Your task to perform on an android device: Empty the shopping cart on bestbuy.com. Add "razer deathadder" to the cart on bestbuy.com, then select checkout. Image 0: 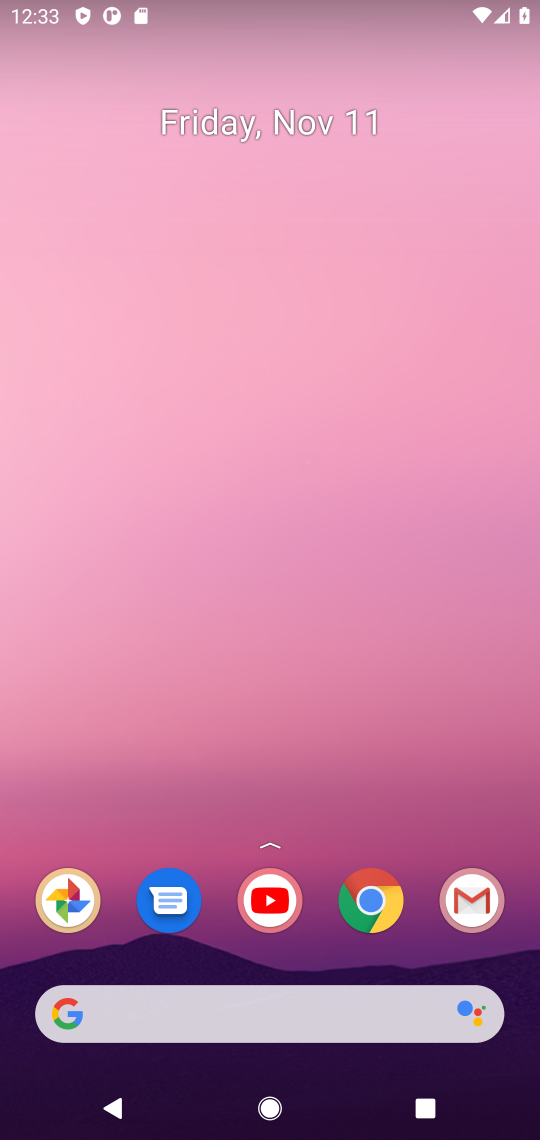
Step 0: click (366, 907)
Your task to perform on an android device: Empty the shopping cart on bestbuy.com. Add "razer deathadder" to the cart on bestbuy.com, then select checkout. Image 1: 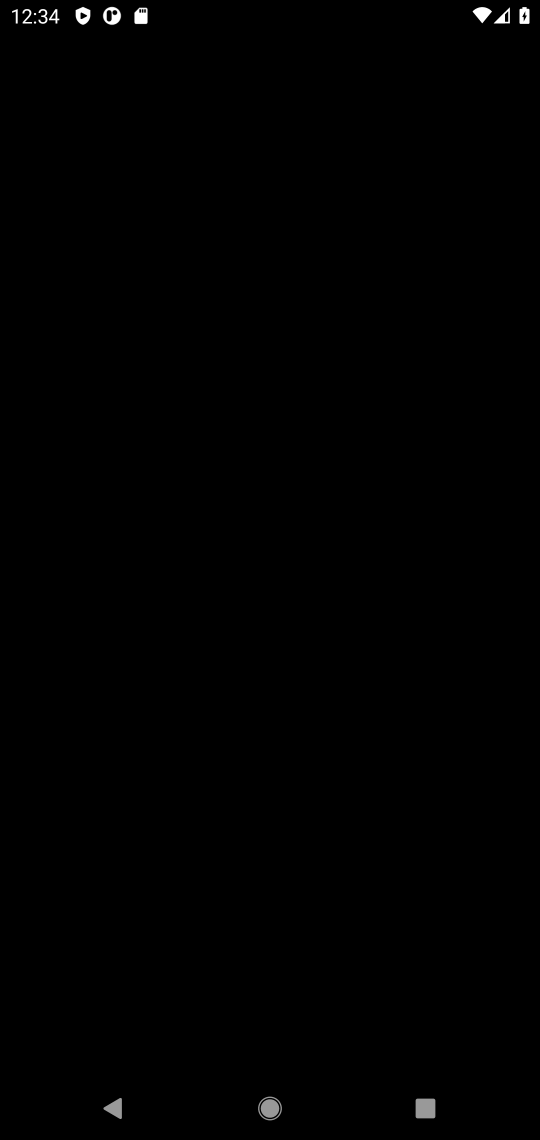
Step 1: press back button
Your task to perform on an android device: Empty the shopping cart on bestbuy.com. Add "razer deathadder" to the cart on bestbuy.com, then select checkout. Image 2: 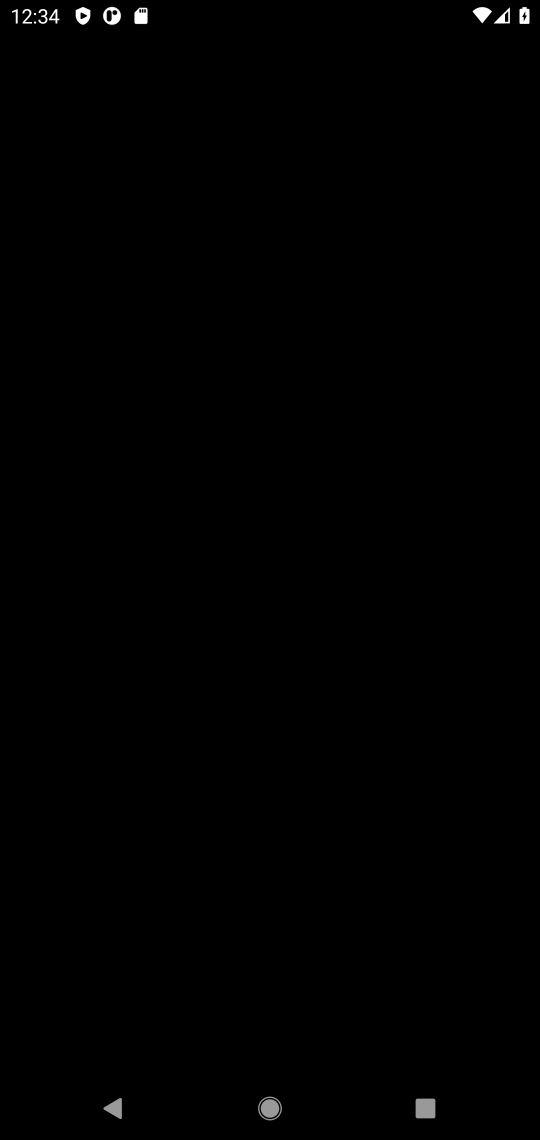
Step 2: press home button
Your task to perform on an android device: Empty the shopping cart on bestbuy.com. Add "razer deathadder" to the cart on bestbuy.com, then select checkout. Image 3: 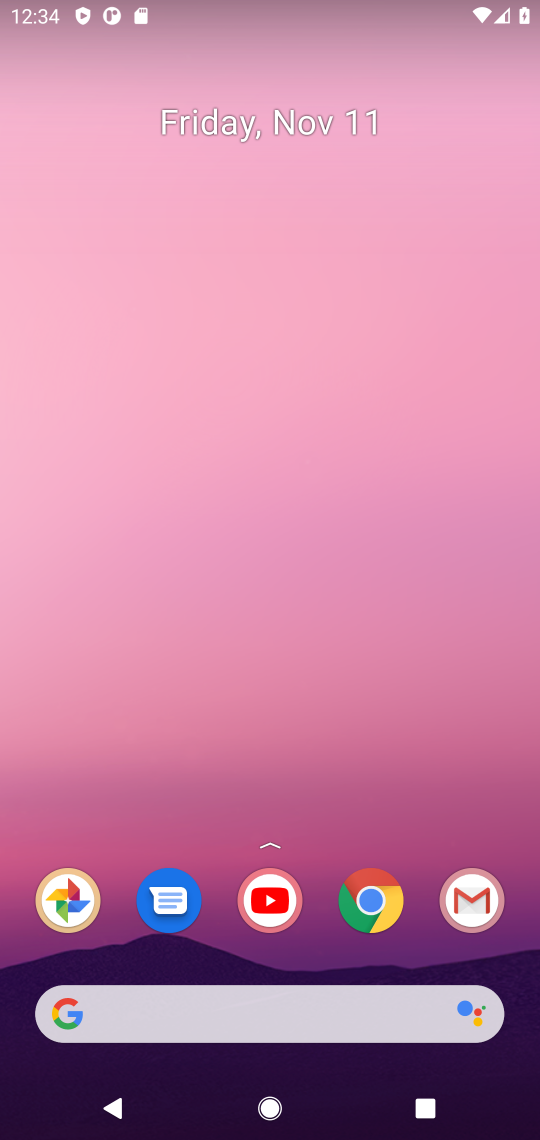
Step 3: click (369, 901)
Your task to perform on an android device: Empty the shopping cart on bestbuy.com. Add "razer deathadder" to the cart on bestbuy.com, then select checkout. Image 4: 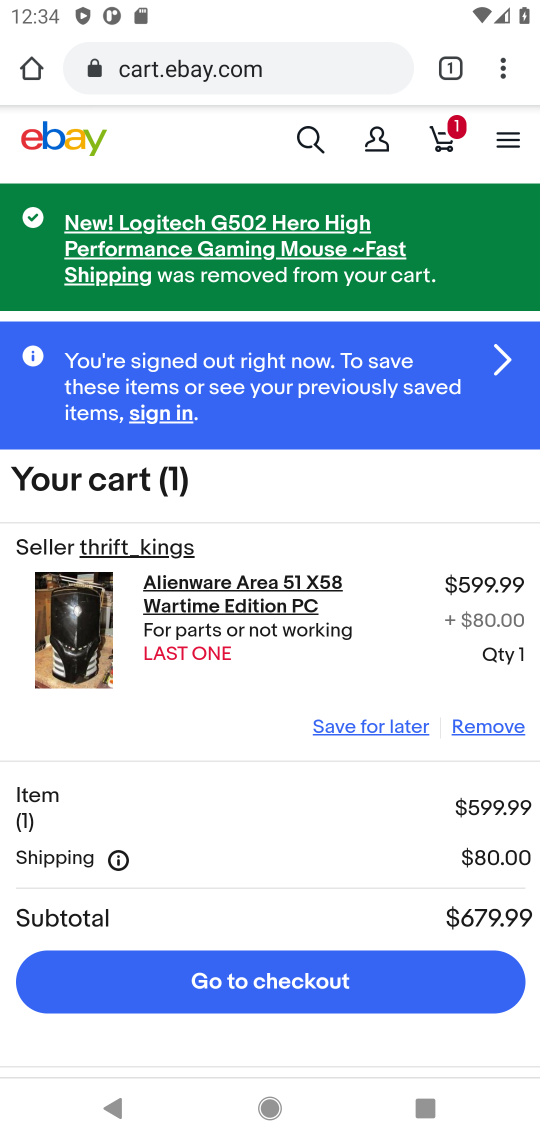
Step 4: click (288, 66)
Your task to perform on an android device: Empty the shopping cart on bestbuy.com. Add "razer deathadder" to the cart on bestbuy.com, then select checkout. Image 5: 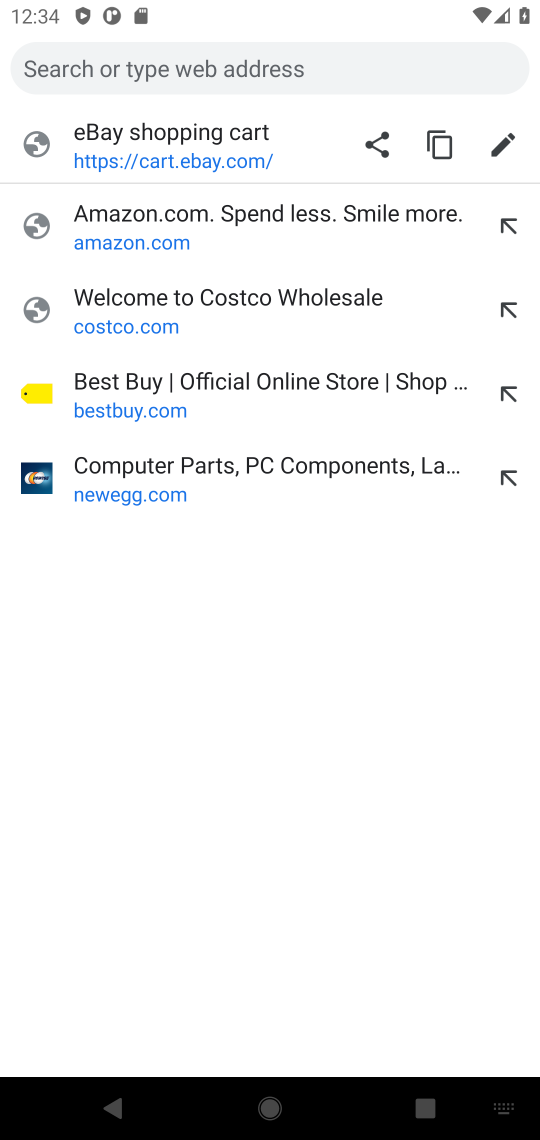
Step 5: click (136, 400)
Your task to perform on an android device: Empty the shopping cart on bestbuy.com. Add "razer deathadder" to the cart on bestbuy.com, then select checkout. Image 6: 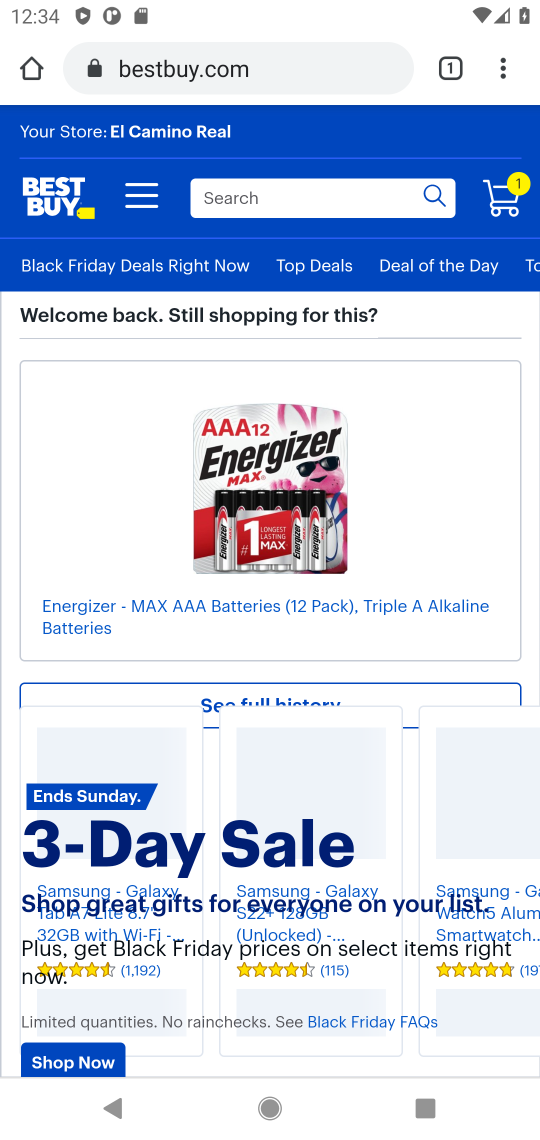
Step 6: click (298, 197)
Your task to perform on an android device: Empty the shopping cart on bestbuy.com. Add "razer deathadder" to the cart on bestbuy.com, then select checkout. Image 7: 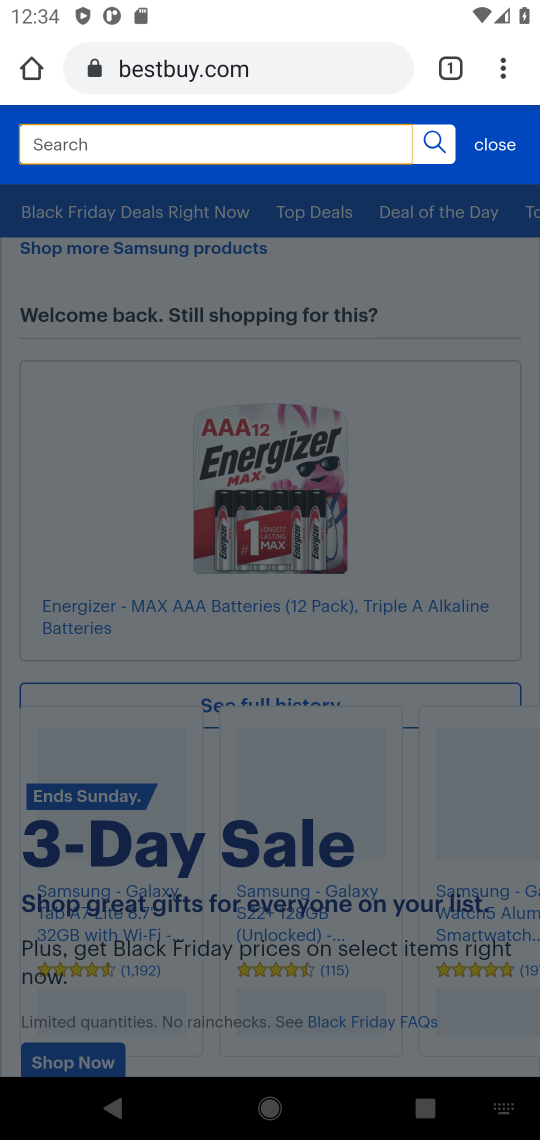
Step 7: type "razer deathadder"
Your task to perform on an android device: Empty the shopping cart on bestbuy.com. Add "razer deathadder" to the cart on bestbuy.com, then select checkout. Image 8: 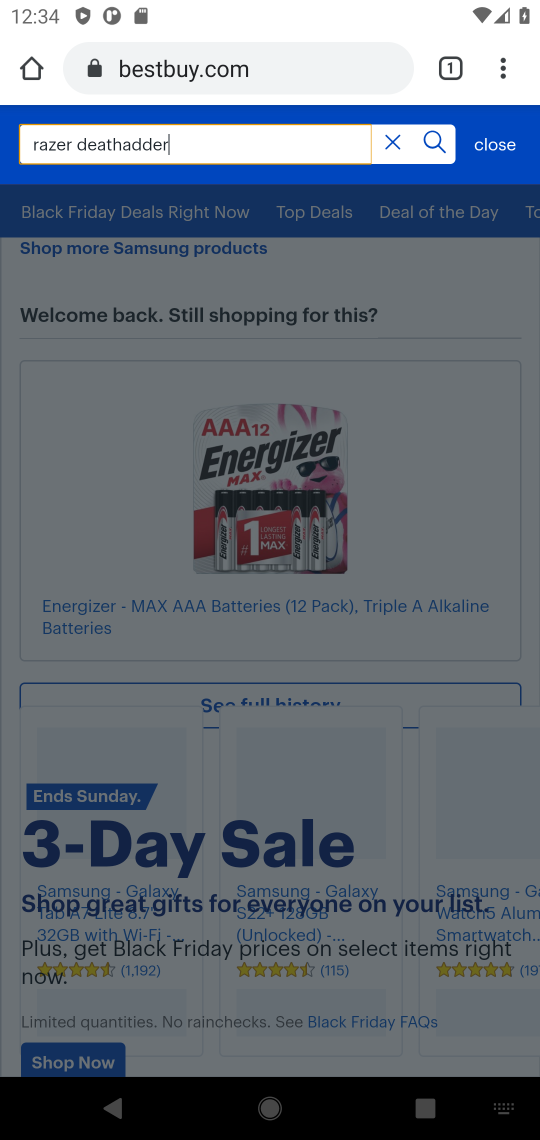
Step 8: press enter
Your task to perform on an android device: Empty the shopping cart on bestbuy.com. Add "razer deathadder" to the cart on bestbuy.com, then select checkout. Image 9: 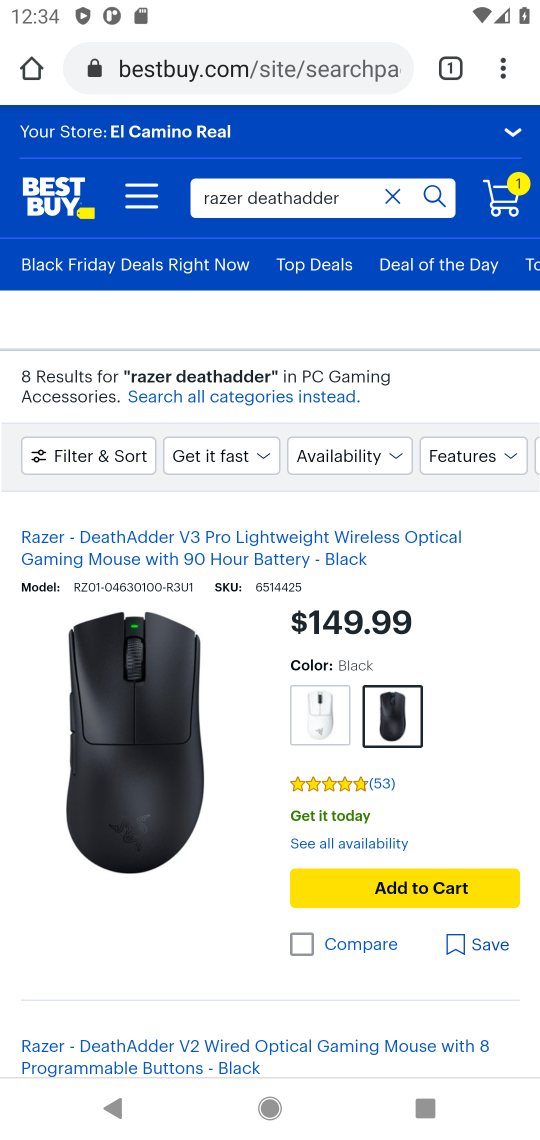
Step 9: drag from (226, 917) to (377, 602)
Your task to perform on an android device: Empty the shopping cart on bestbuy.com. Add "razer deathadder" to the cart on bestbuy.com, then select checkout. Image 10: 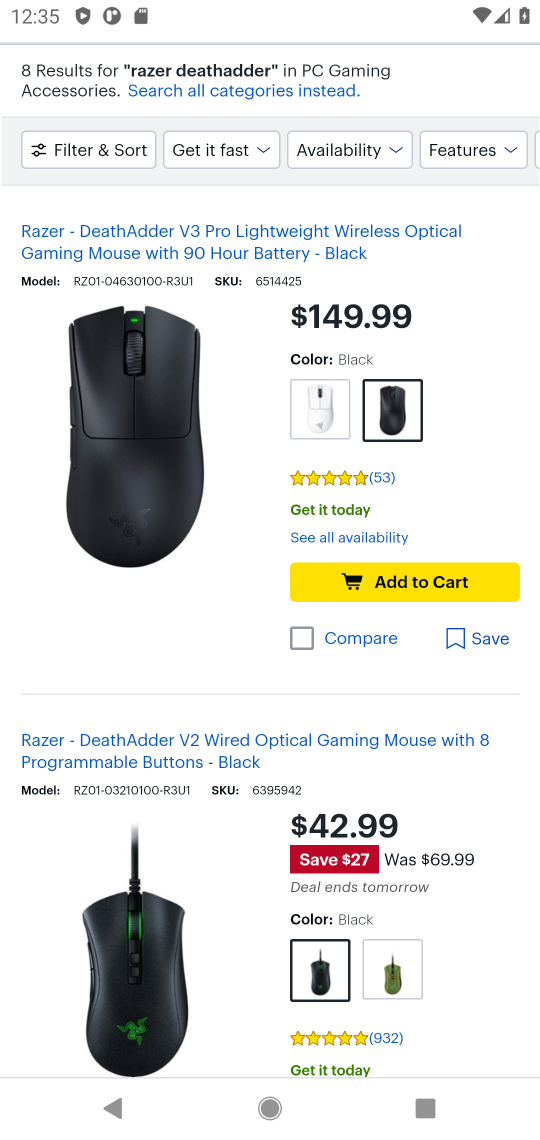
Step 10: click (434, 571)
Your task to perform on an android device: Empty the shopping cart on bestbuy.com. Add "razer deathadder" to the cart on bestbuy.com, then select checkout. Image 11: 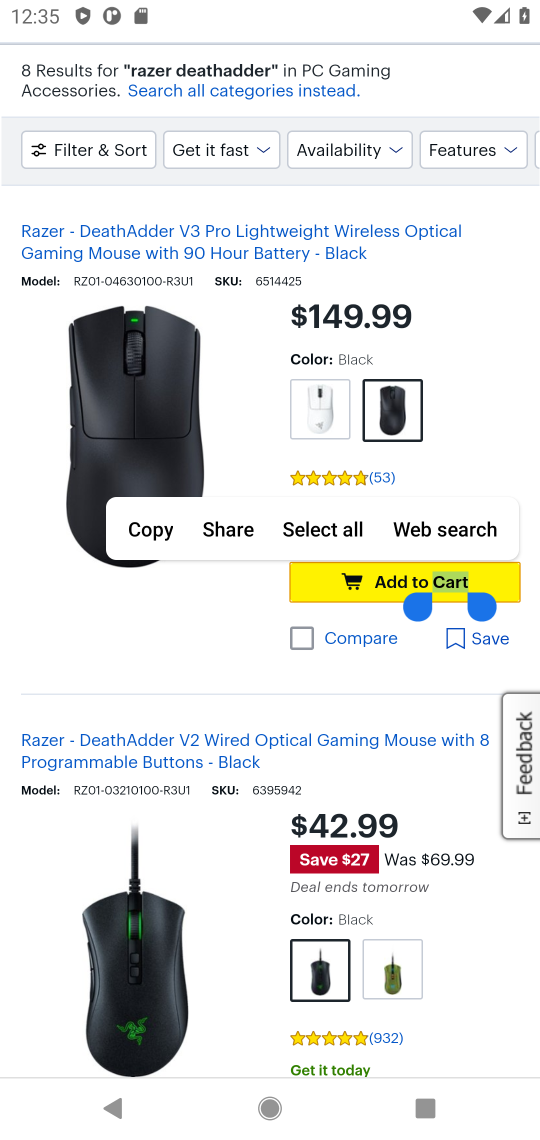
Step 11: click (399, 572)
Your task to perform on an android device: Empty the shopping cart on bestbuy.com. Add "razer deathadder" to the cart on bestbuy.com, then select checkout. Image 12: 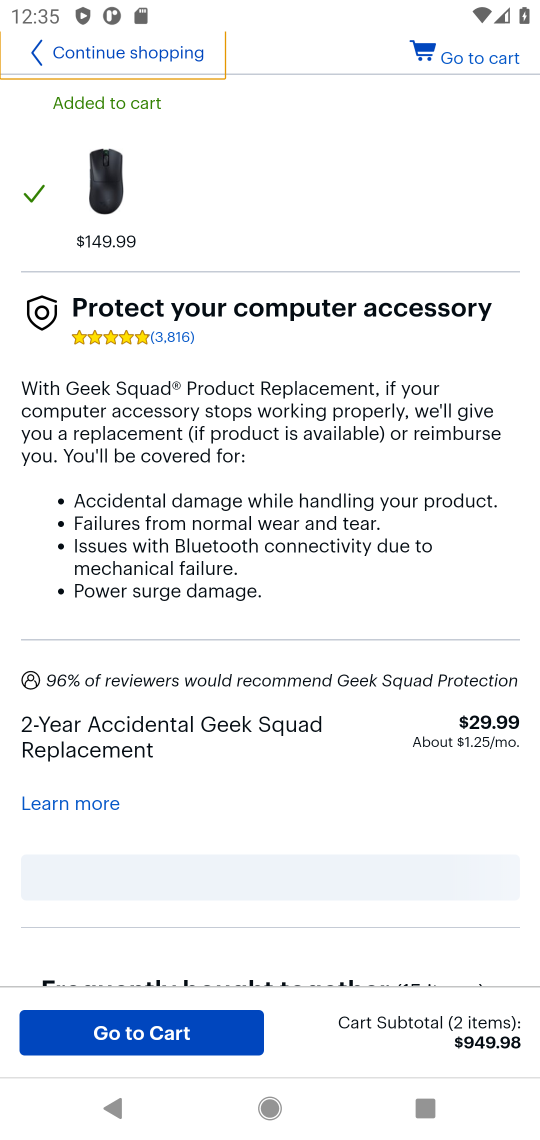
Step 12: click (493, 53)
Your task to perform on an android device: Empty the shopping cart on bestbuy.com. Add "razer deathadder" to the cart on bestbuy.com, then select checkout. Image 13: 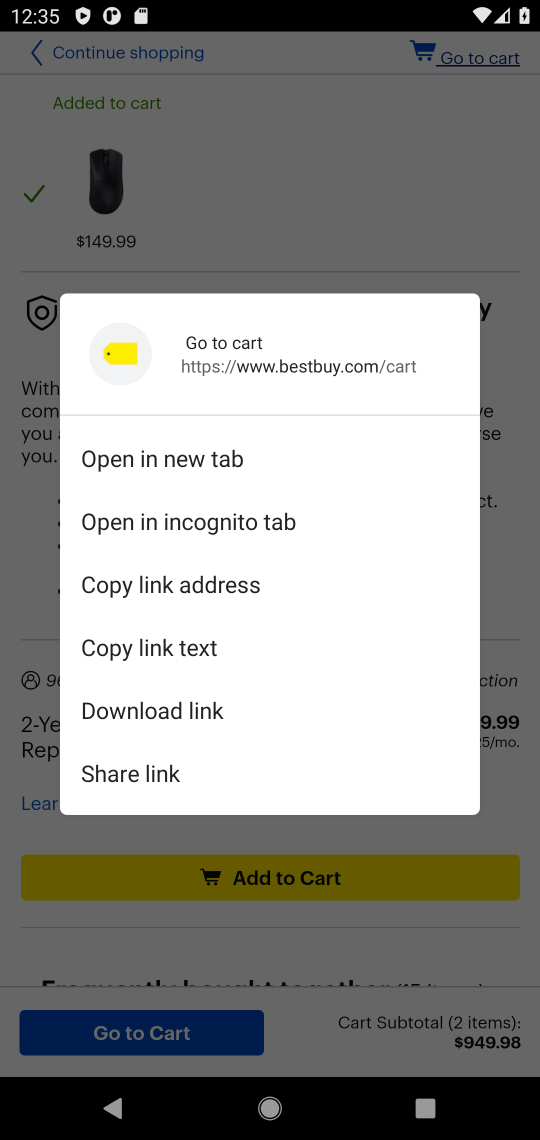
Step 13: click (486, 55)
Your task to perform on an android device: Empty the shopping cart on bestbuy.com. Add "razer deathadder" to the cart on bestbuy.com, then select checkout. Image 14: 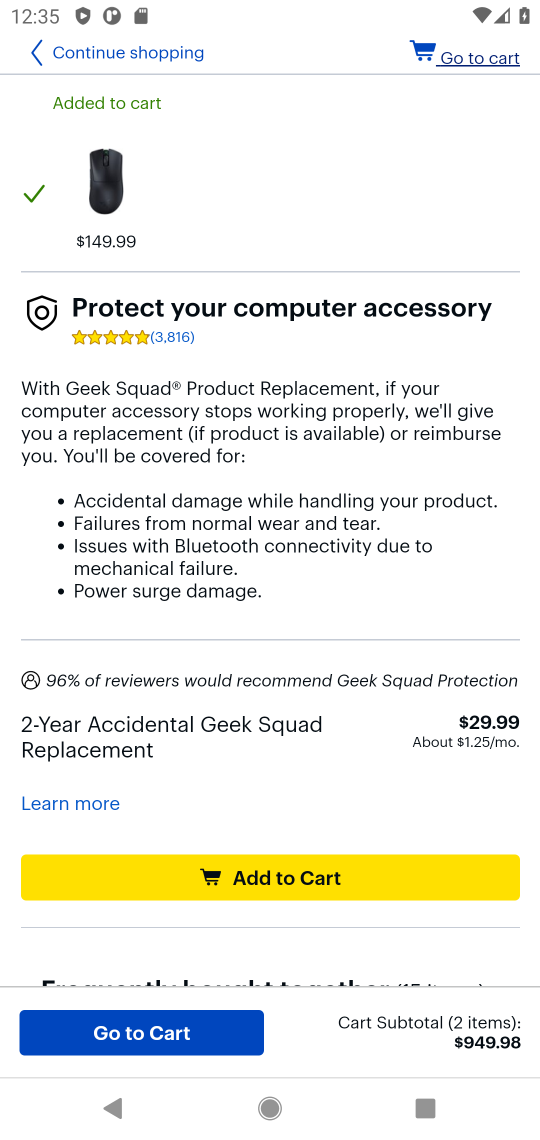
Step 14: click (478, 56)
Your task to perform on an android device: Empty the shopping cart on bestbuy.com. Add "razer deathadder" to the cart on bestbuy.com, then select checkout. Image 15: 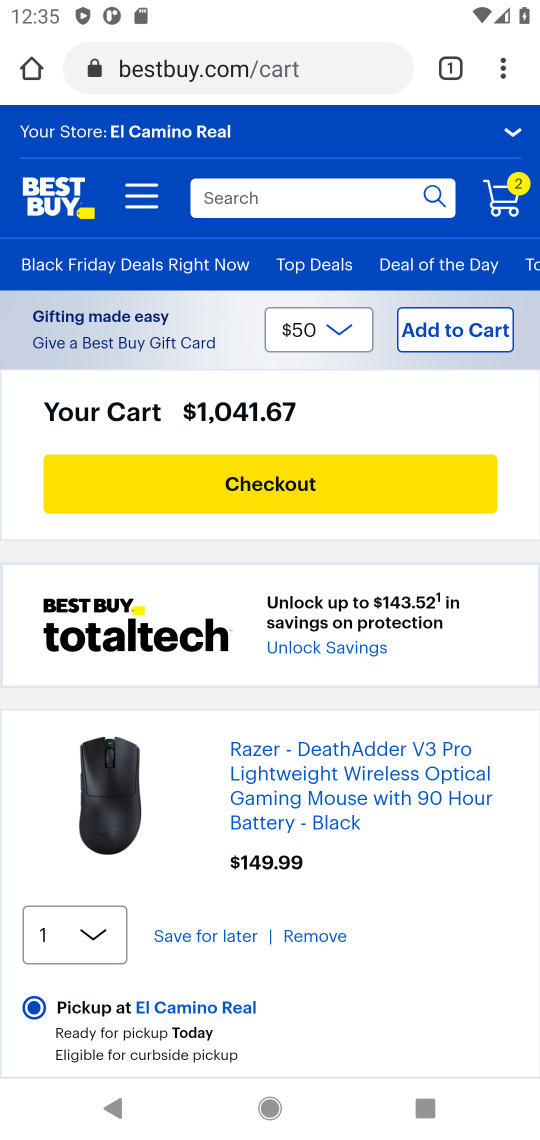
Step 15: click (303, 481)
Your task to perform on an android device: Empty the shopping cart on bestbuy.com. Add "razer deathadder" to the cart on bestbuy.com, then select checkout. Image 16: 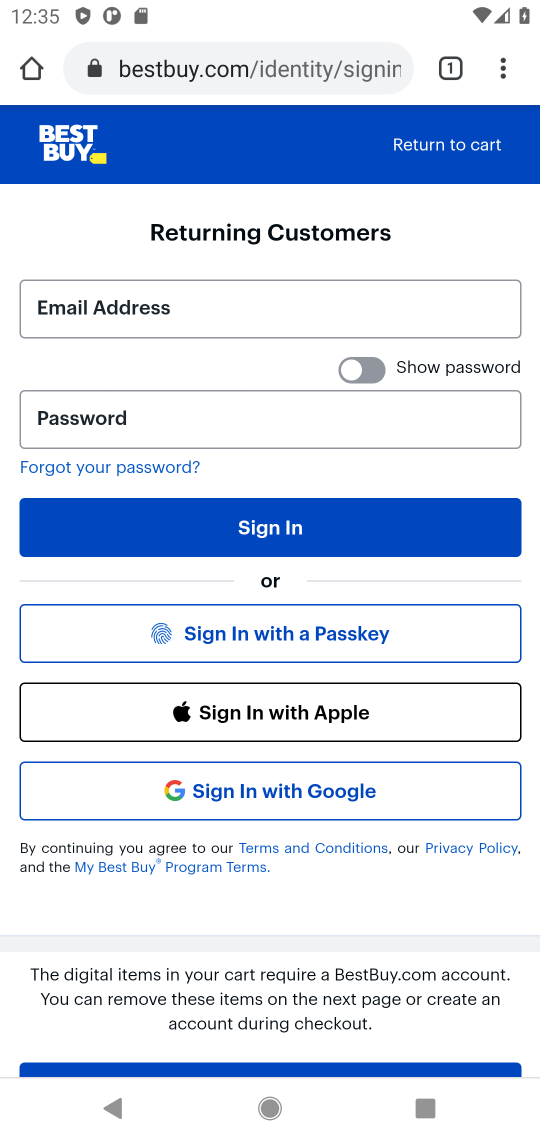
Step 16: task complete